Your task to perform on an android device: visit the assistant section in the google photos Image 0: 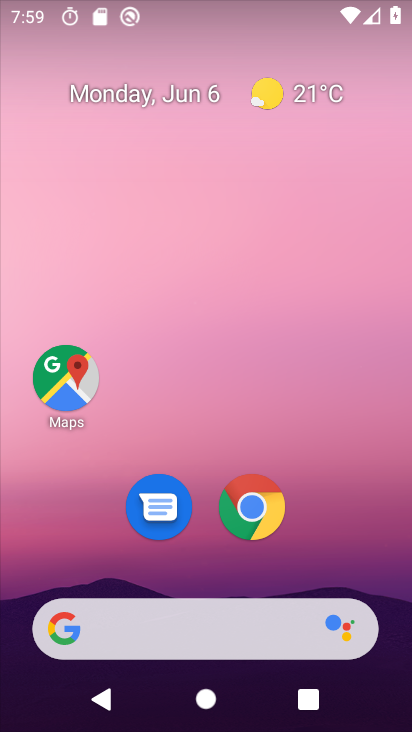
Step 0: drag from (304, 548) to (253, 78)
Your task to perform on an android device: visit the assistant section in the google photos Image 1: 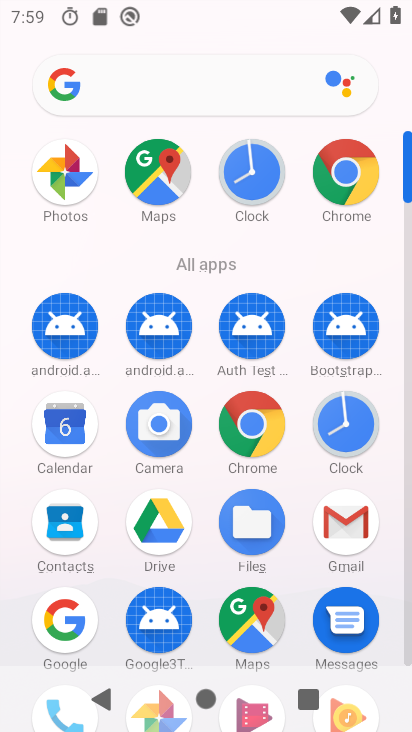
Step 1: click (406, 617)
Your task to perform on an android device: visit the assistant section in the google photos Image 2: 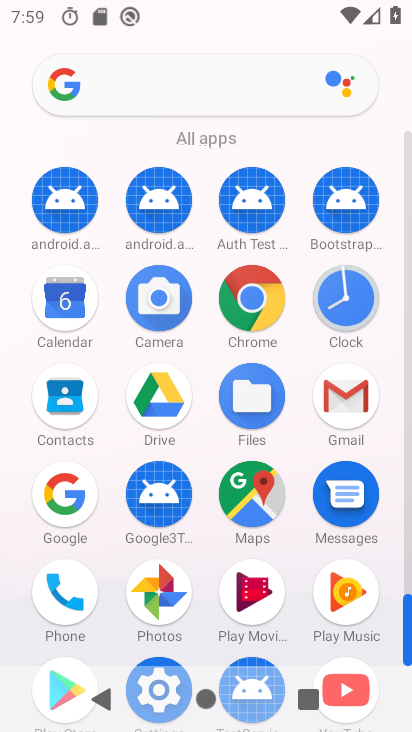
Step 2: click (154, 592)
Your task to perform on an android device: visit the assistant section in the google photos Image 3: 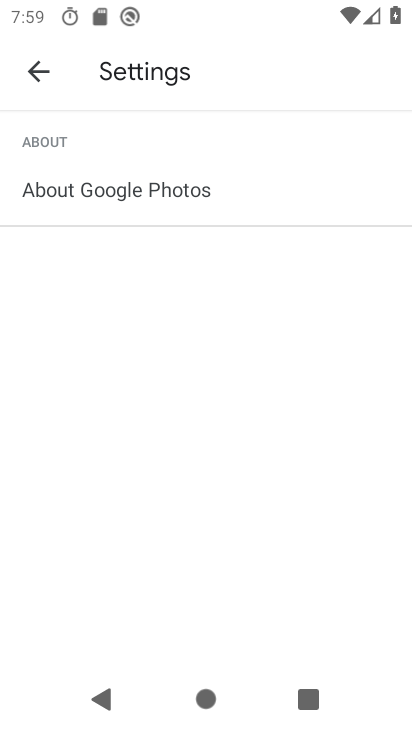
Step 3: click (40, 85)
Your task to perform on an android device: visit the assistant section in the google photos Image 4: 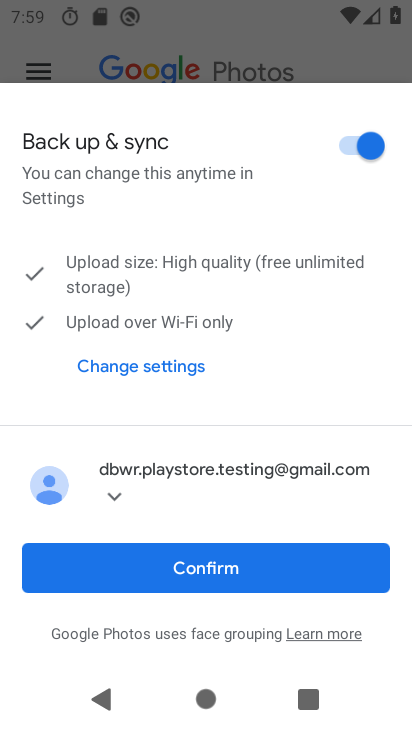
Step 4: click (168, 572)
Your task to perform on an android device: visit the assistant section in the google photos Image 5: 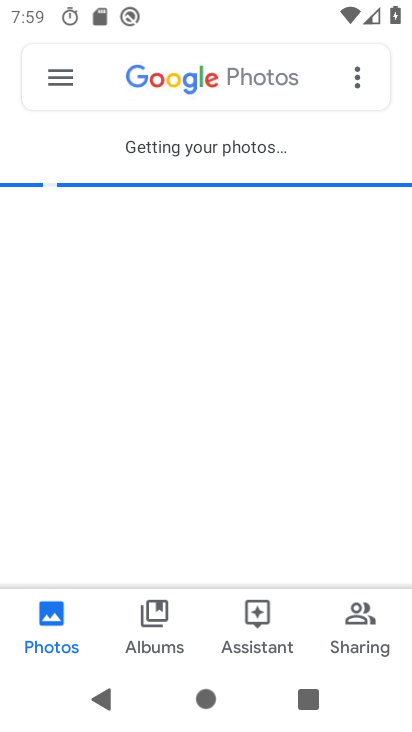
Step 5: click (280, 635)
Your task to perform on an android device: visit the assistant section in the google photos Image 6: 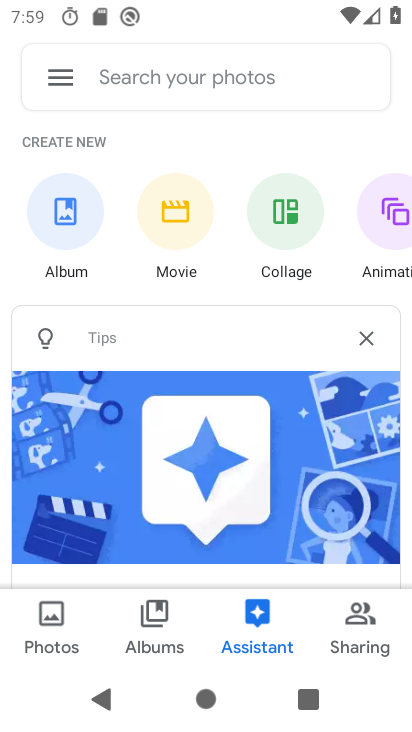
Step 6: task complete